Your task to perform on an android device: Open Google Chrome and open the bookmarks view Image 0: 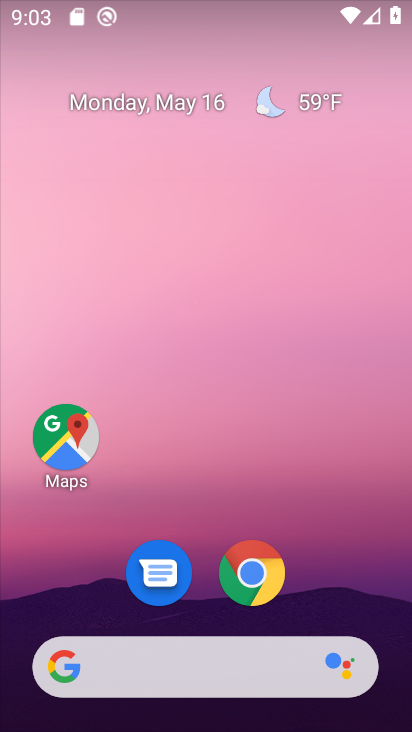
Step 0: click (254, 592)
Your task to perform on an android device: Open Google Chrome and open the bookmarks view Image 1: 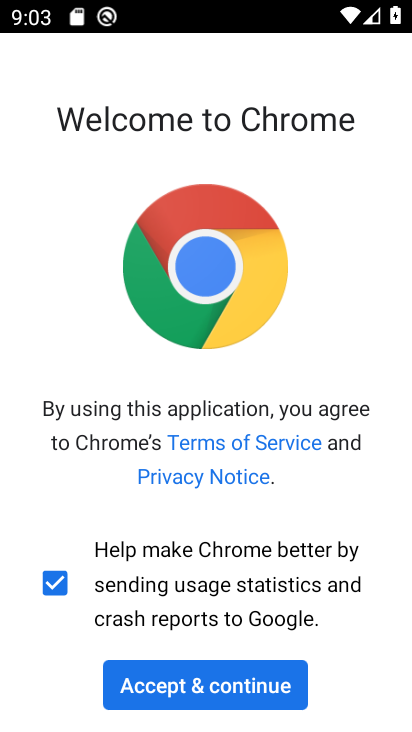
Step 1: click (245, 665)
Your task to perform on an android device: Open Google Chrome and open the bookmarks view Image 2: 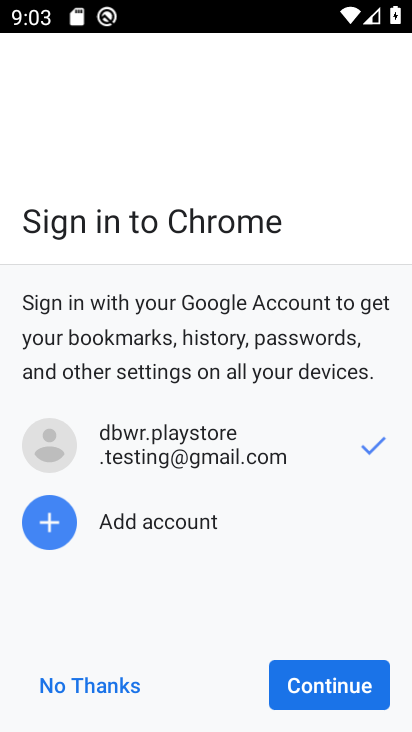
Step 2: click (314, 686)
Your task to perform on an android device: Open Google Chrome and open the bookmarks view Image 3: 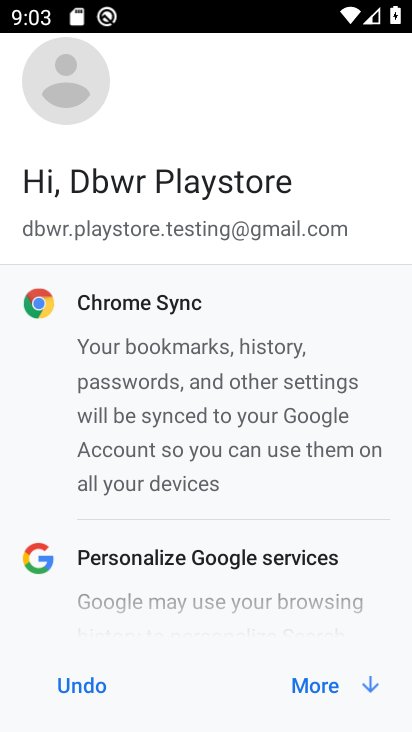
Step 3: click (314, 686)
Your task to perform on an android device: Open Google Chrome and open the bookmarks view Image 4: 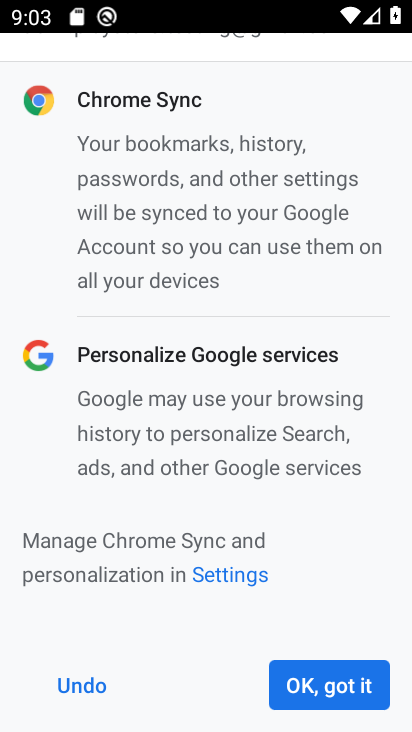
Step 4: click (314, 686)
Your task to perform on an android device: Open Google Chrome and open the bookmarks view Image 5: 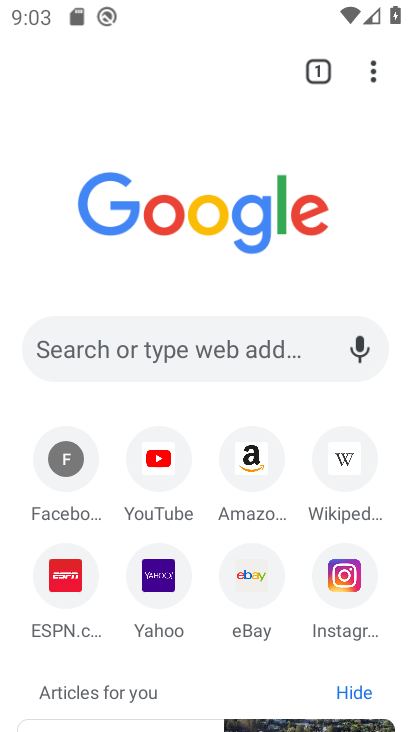
Step 5: drag from (379, 66) to (207, 276)
Your task to perform on an android device: Open Google Chrome and open the bookmarks view Image 6: 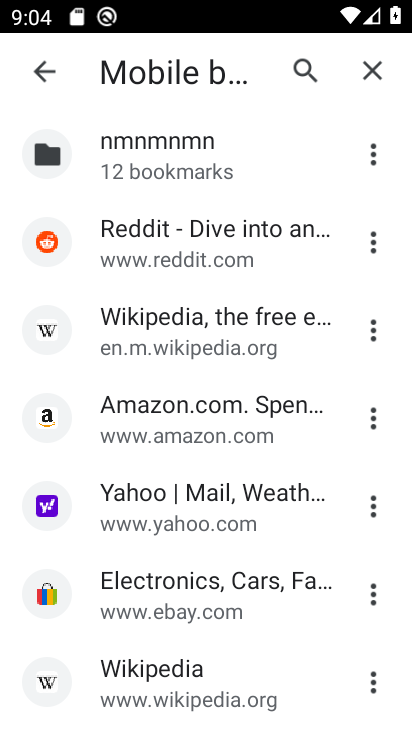
Step 6: click (210, 237)
Your task to perform on an android device: Open Google Chrome and open the bookmarks view Image 7: 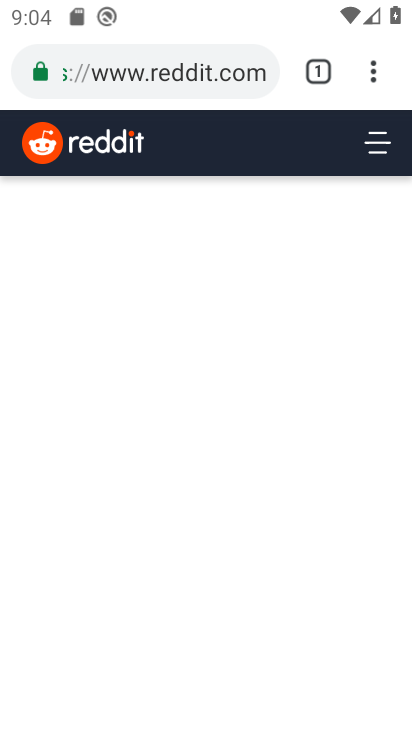
Step 7: task complete